Your task to perform on an android device: Open Google Image 0: 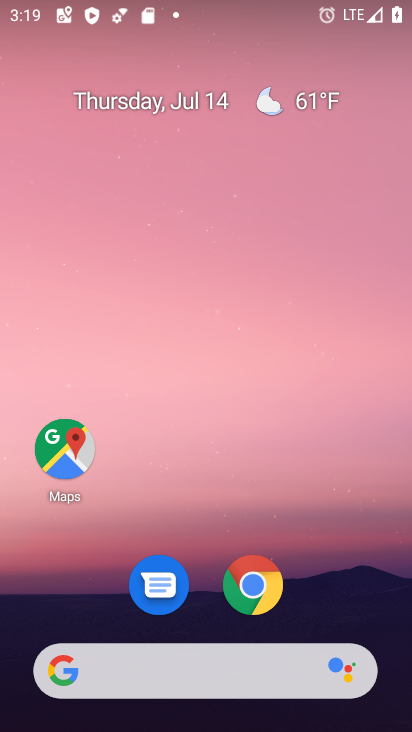
Step 0: click (161, 670)
Your task to perform on an android device: Open Google Image 1: 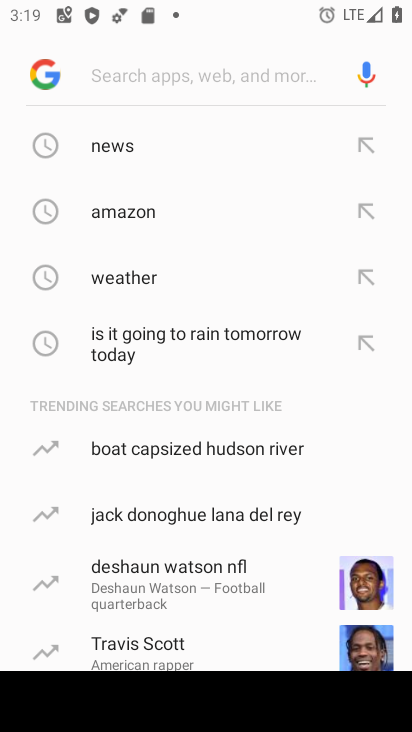
Step 1: click (47, 80)
Your task to perform on an android device: Open Google Image 2: 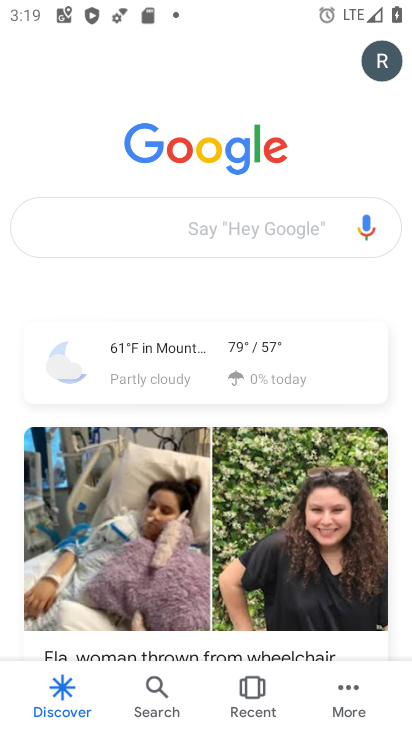
Step 2: task complete